Your task to perform on an android device: turn on the 12-hour format for clock Image 0: 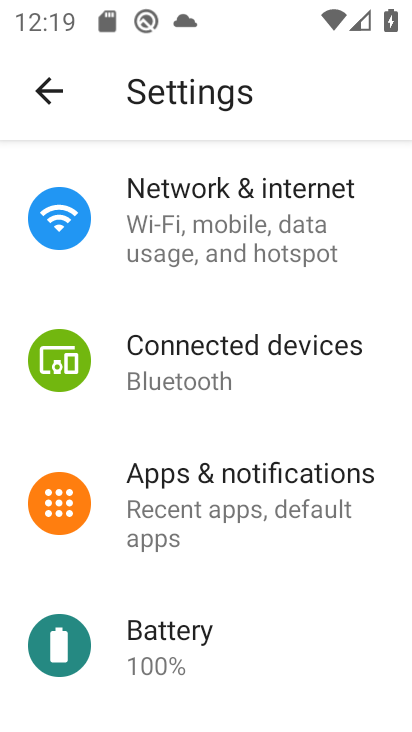
Step 0: press home button
Your task to perform on an android device: turn on the 12-hour format for clock Image 1: 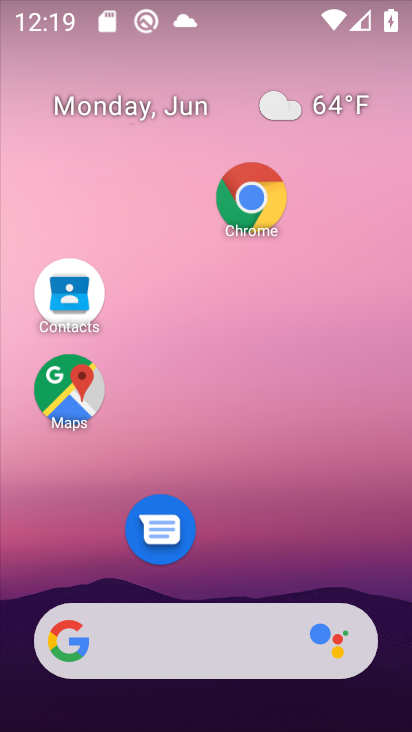
Step 1: drag from (280, 467) to (305, 40)
Your task to perform on an android device: turn on the 12-hour format for clock Image 2: 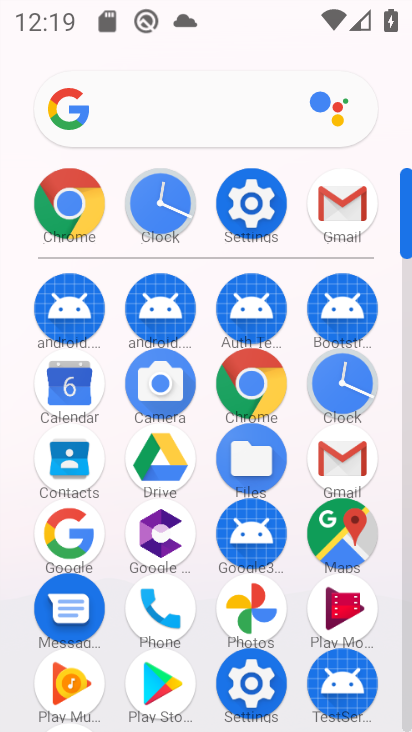
Step 2: click (348, 389)
Your task to perform on an android device: turn on the 12-hour format for clock Image 3: 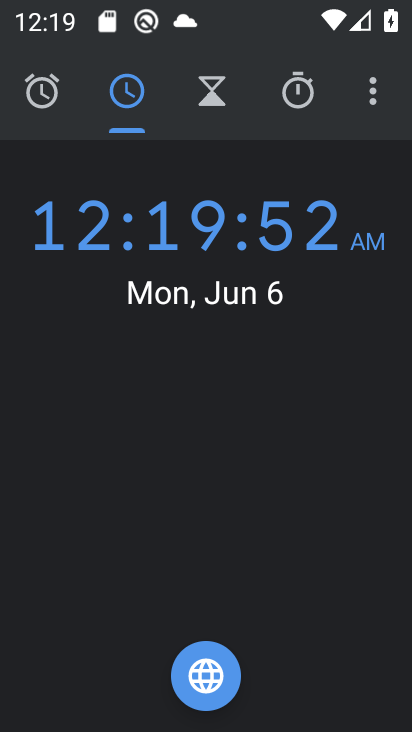
Step 3: click (373, 116)
Your task to perform on an android device: turn on the 12-hour format for clock Image 4: 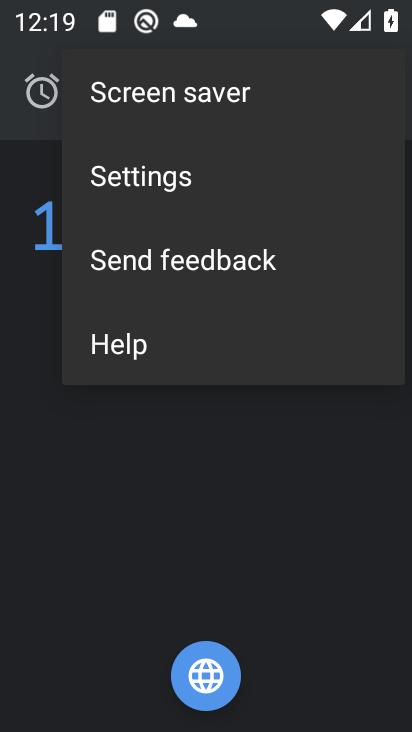
Step 4: click (205, 185)
Your task to perform on an android device: turn on the 12-hour format for clock Image 5: 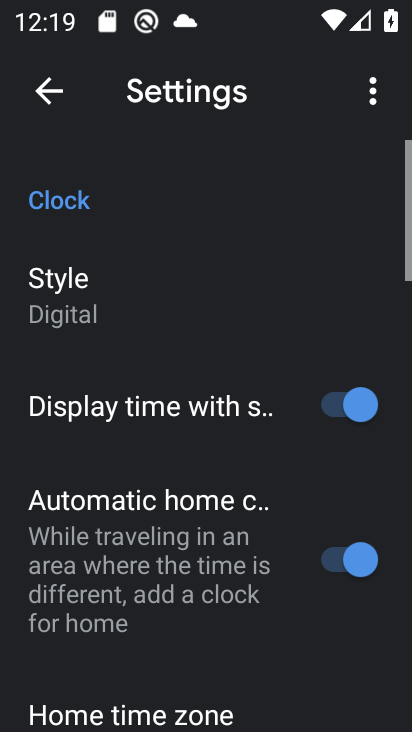
Step 5: drag from (205, 493) to (196, 114)
Your task to perform on an android device: turn on the 12-hour format for clock Image 6: 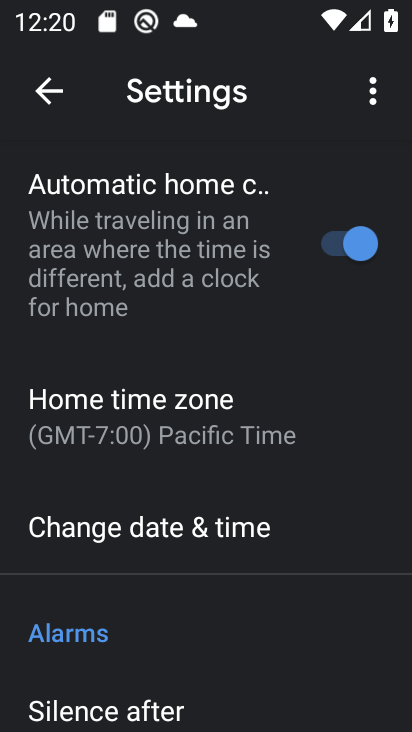
Step 6: click (182, 561)
Your task to perform on an android device: turn on the 12-hour format for clock Image 7: 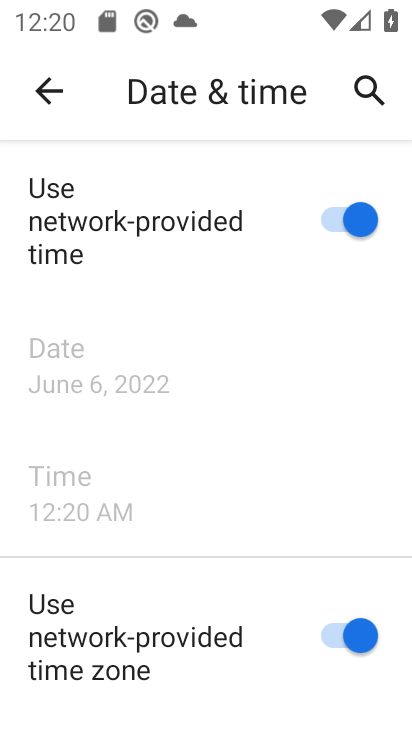
Step 7: task complete